Your task to perform on an android device: Open eBay Image 0: 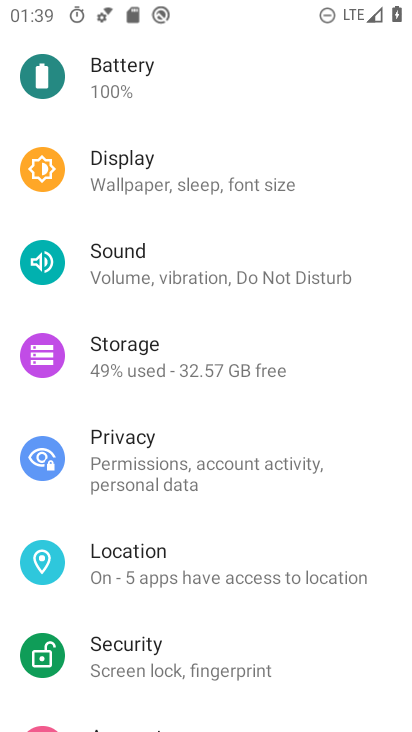
Step 0: press home button
Your task to perform on an android device: Open eBay Image 1: 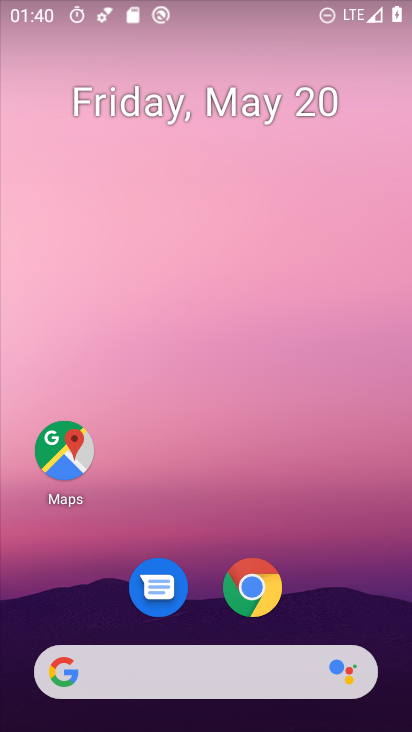
Step 1: drag from (370, 608) to (372, 456)
Your task to perform on an android device: Open eBay Image 2: 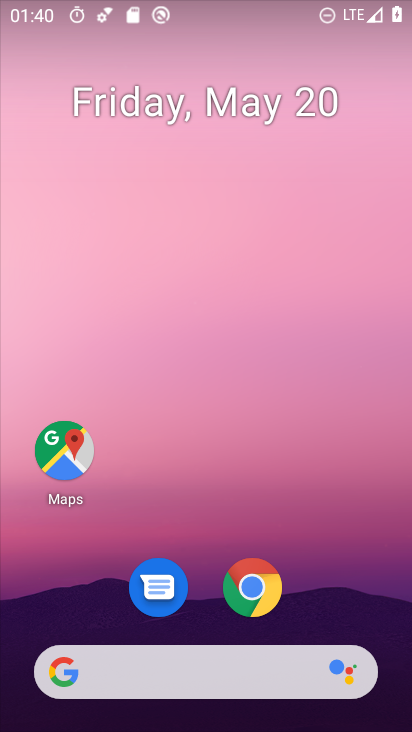
Step 2: drag from (391, 612) to (349, 273)
Your task to perform on an android device: Open eBay Image 3: 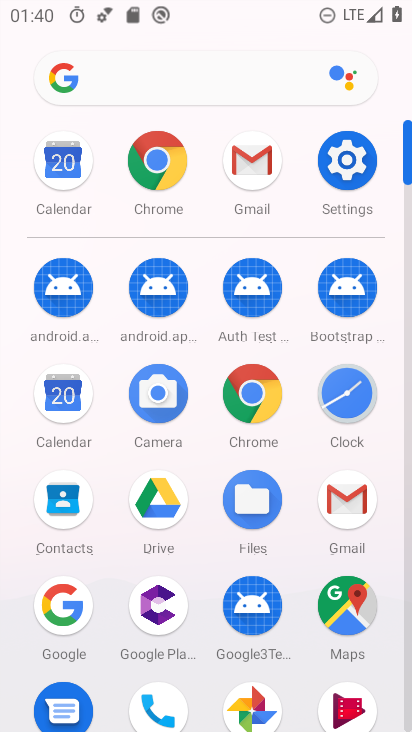
Step 3: click (245, 371)
Your task to perform on an android device: Open eBay Image 4: 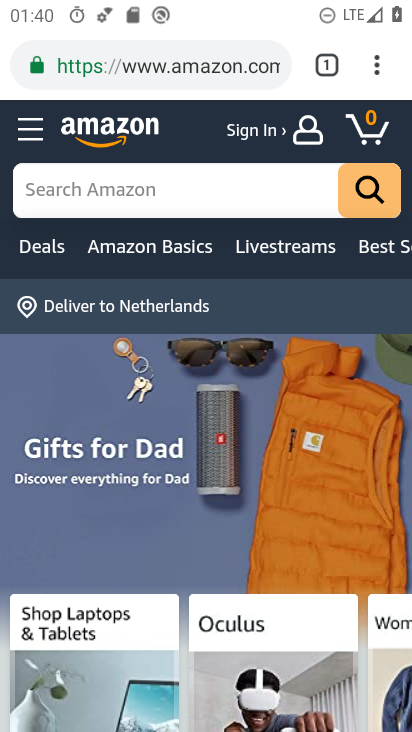
Step 4: click (110, 65)
Your task to perform on an android device: Open eBay Image 5: 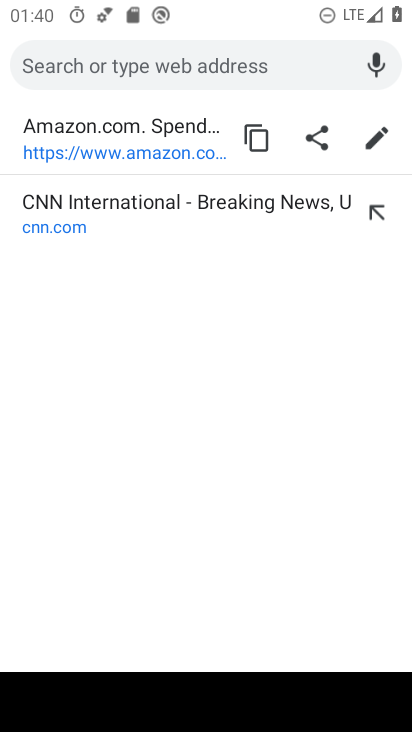
Step 5: type "ebay"
Your task to perform on an android device: Open eBay Image 6: 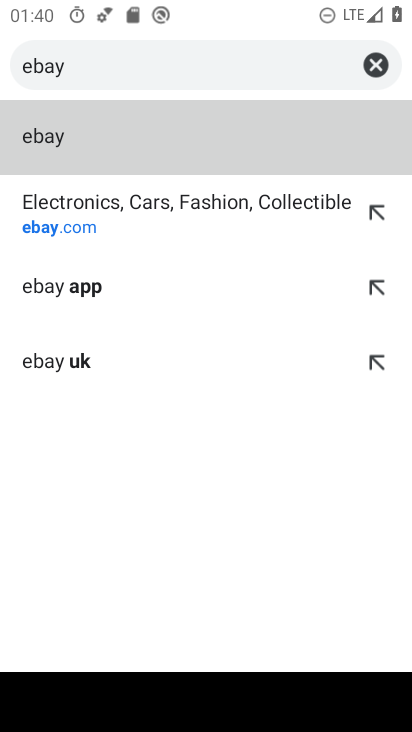
Step 6: click (121, 148)
Your task to perform on an android device: Open eBay Image 7: 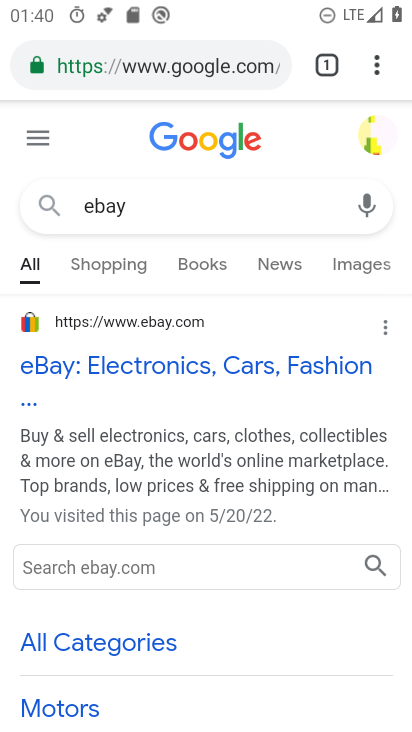
Step 7: task complete